Your task to perform on an android device: toggle show notifications on the lock screen Image 0: 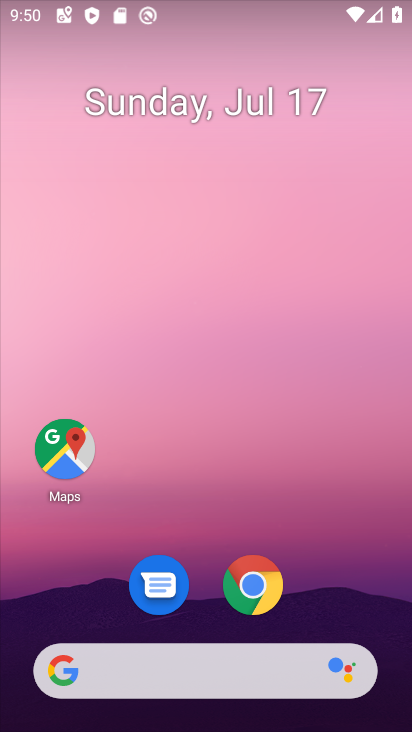
Step 0: drag from (321, 570) to (327, 62)
Your task to perform on an android device: toggle show notifications on the lock screen Image 1: 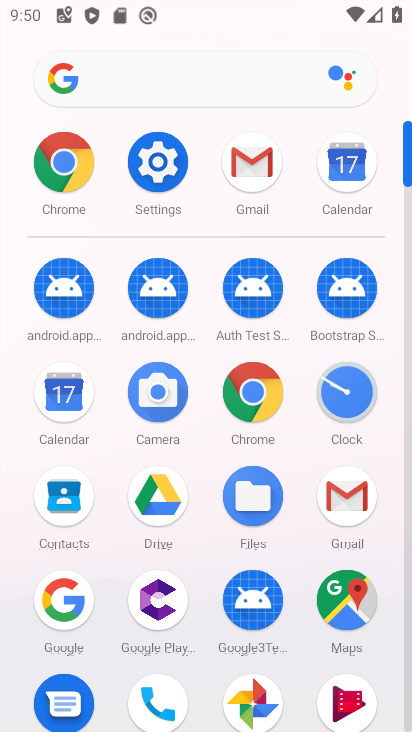
Step 1: click (157, 164)
Your task to perform on an android device: toggle show notifications on the lock screen Image 2: 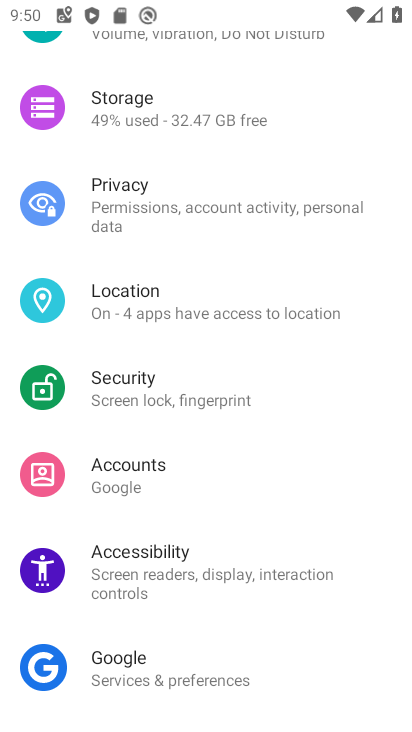
Step 2: drag from (279, 176) to (313, 626)
Your task to perform on an android device: toggle show notifications on the lock screen Image 3: 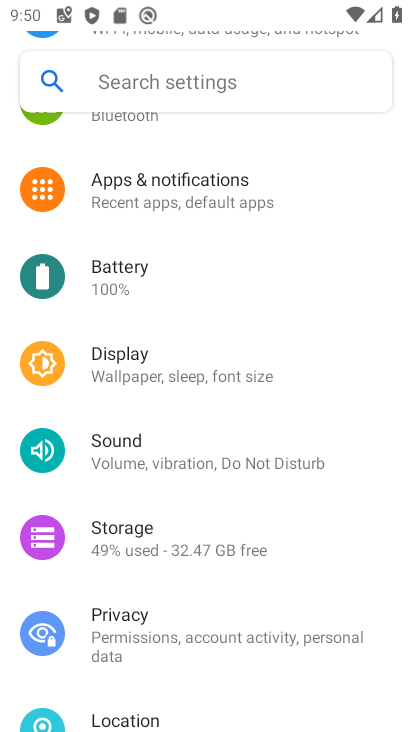
Step 3: click (218, 199)
Your task to perform on an android device: toggle show notifications on the lock screen Image 4: 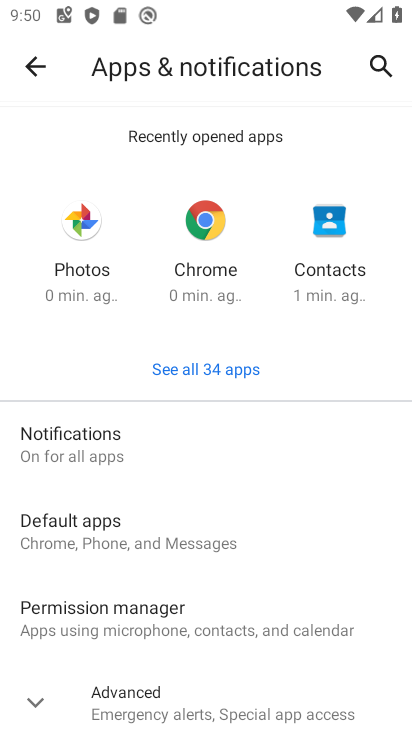
Step 4: drag from (228, 523) to (236, 414)
Your task to perform on an android device: toggle show notifications on the lock screen Image 5: 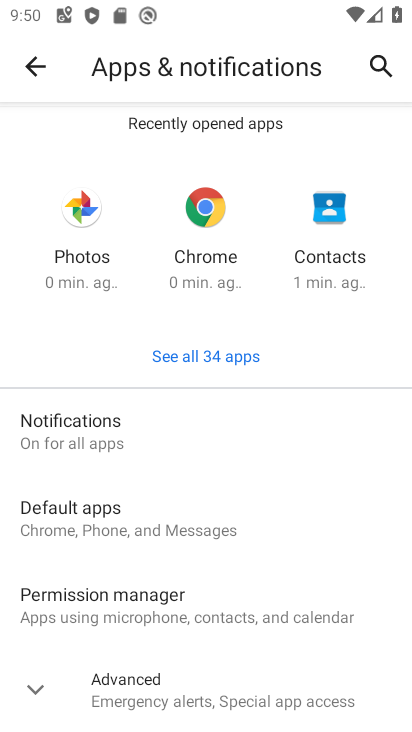
Step 5: click (112, 421)
Your task to perform on an android device: toggle show notifications on the lock screen Image 6: 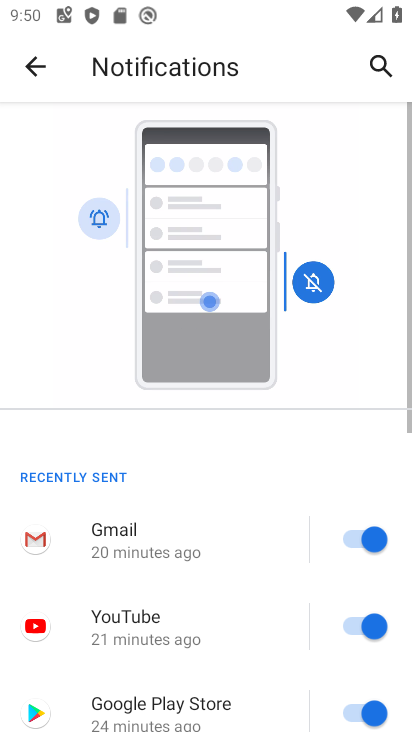
Step 6: drag from (269, 590) to (251, 104)
Your task to perform on an android device: toggle show notifications on the lock screen Image 7: 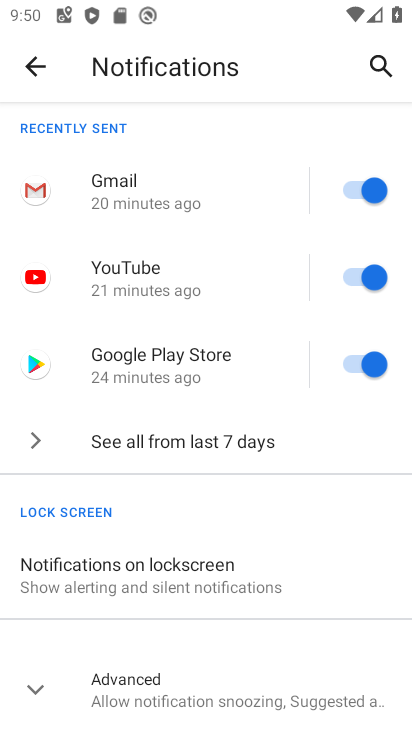
Step 7: click (204, 575)
Your task to perform on an android device: toggle show notifications on the lock screen Image 8: 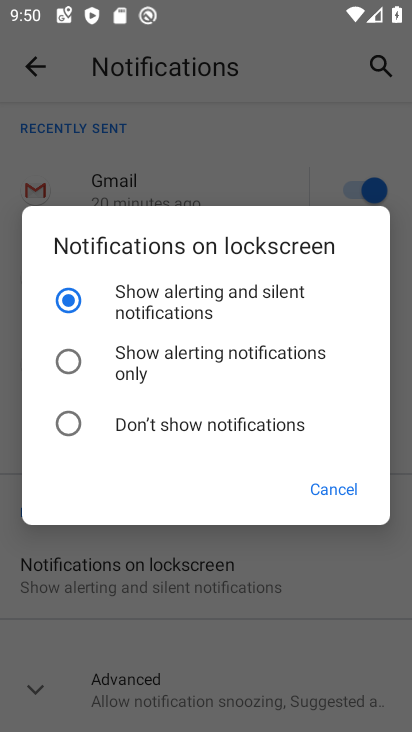
Step 8: click (75, 418)
Your task to perform on an android device: toggle show notifications on the lock screen Image 9: 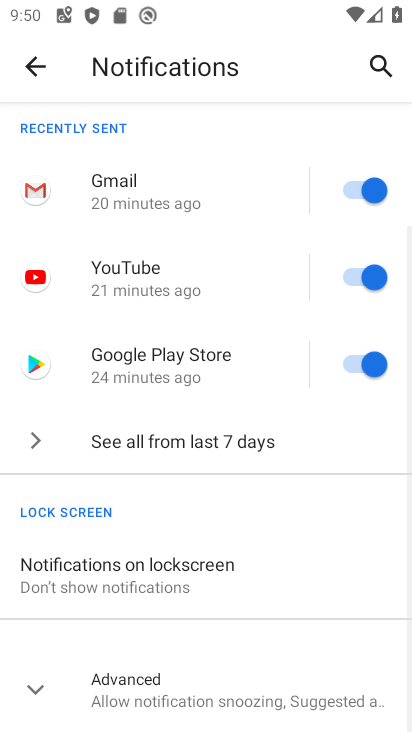
Step 9: task complete